Your task to perform on an android device: uninstall "Flipkart Online Shopping App" Image 0: 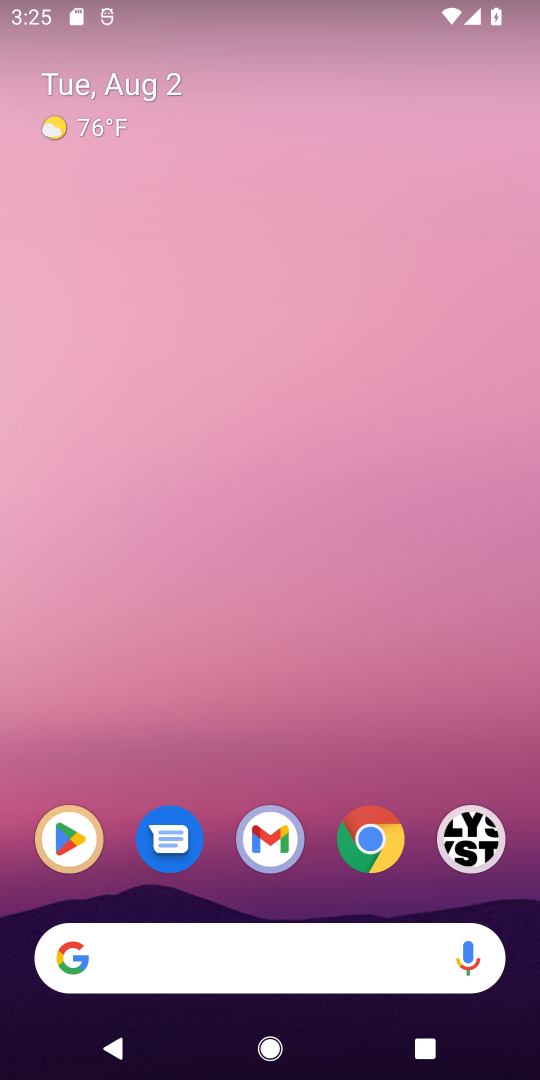
Step 0: drag from (241, 899) to (256, 236)
Your task to perform on an android device: uninstall "Flipkart Online Shopping App" Image 1: 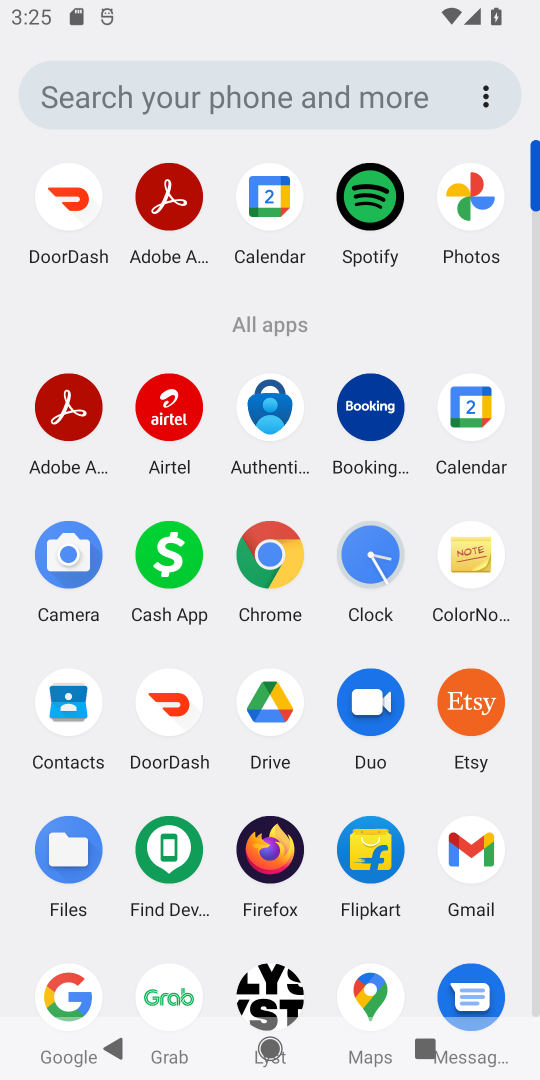
Step 1: click (352, 843)
Your task to perform on an android device: uninstall "Flipkart Online Shopping App" Image 2: 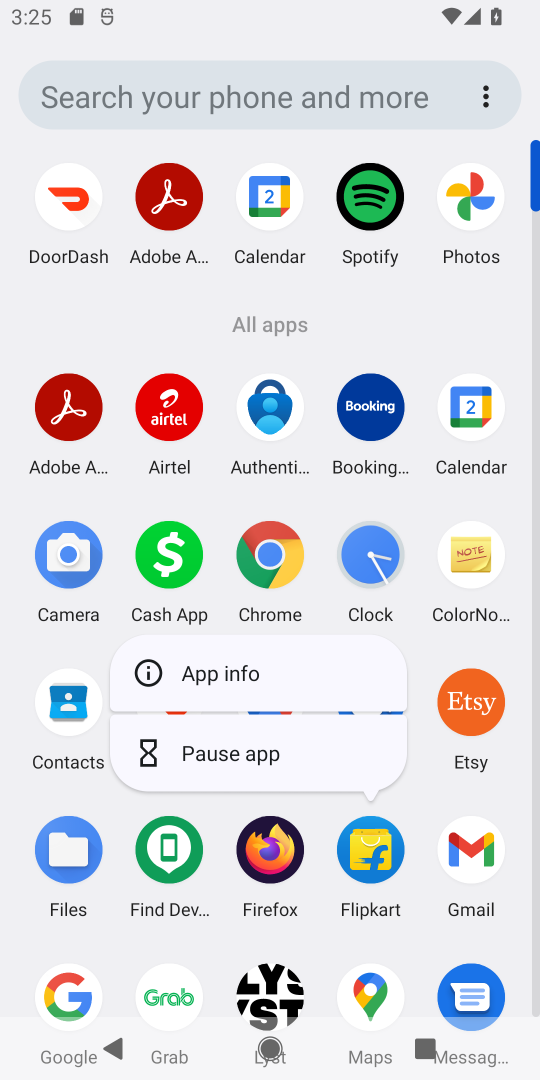
Step 2: click (212, 655)
Your task to perform on an android device: uninstall "Flipkart Online Shopping App" Image 3: 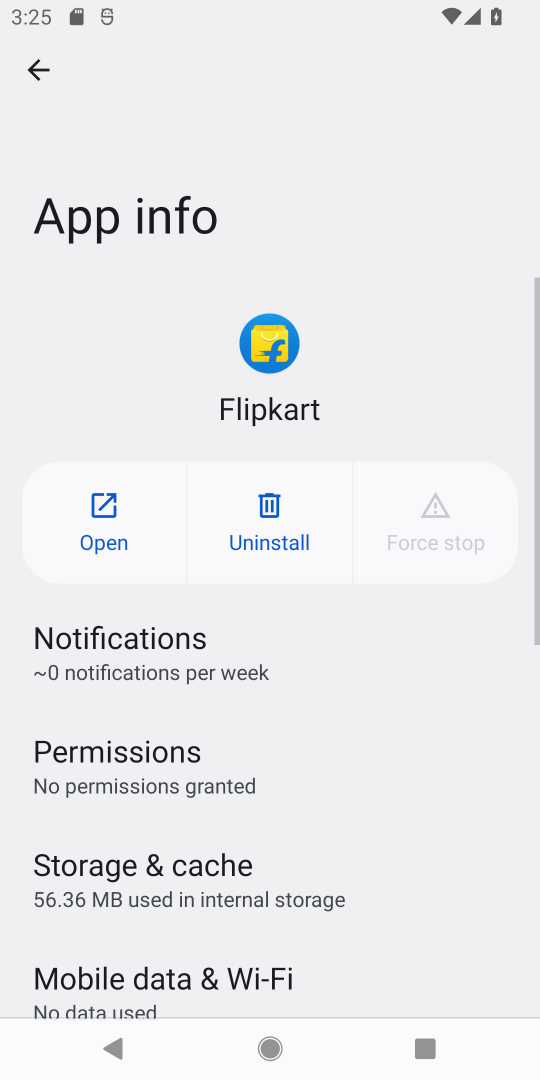
Step 3: click (281, 499)
Your task to perform on an android device: uninstall "Flipkart Online Shopping App" Image 4: 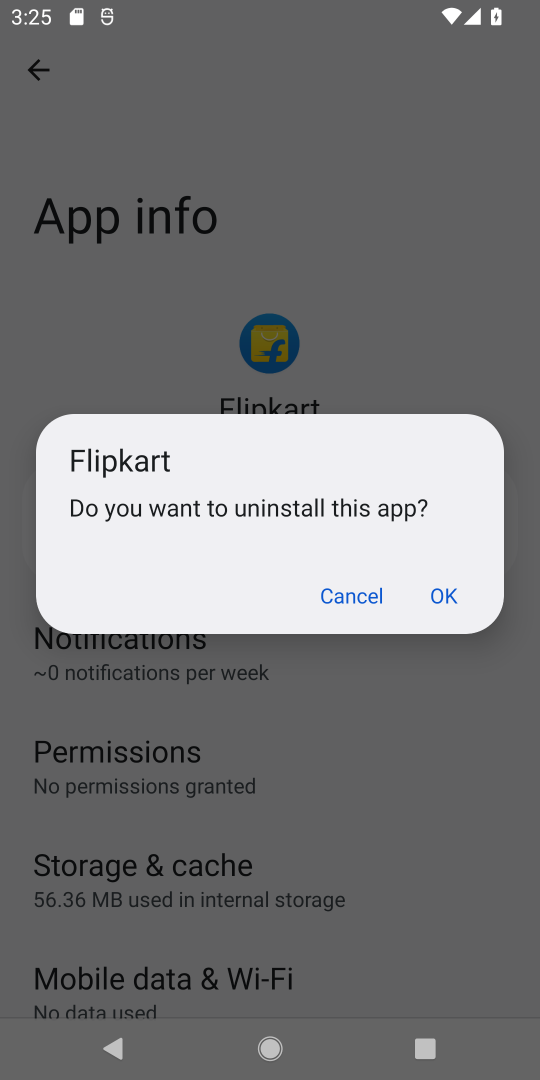
Step 4: click (415, 578)
Your task to perform on an android device: uninstall "Flipkart Online Shopping App" Image 5: 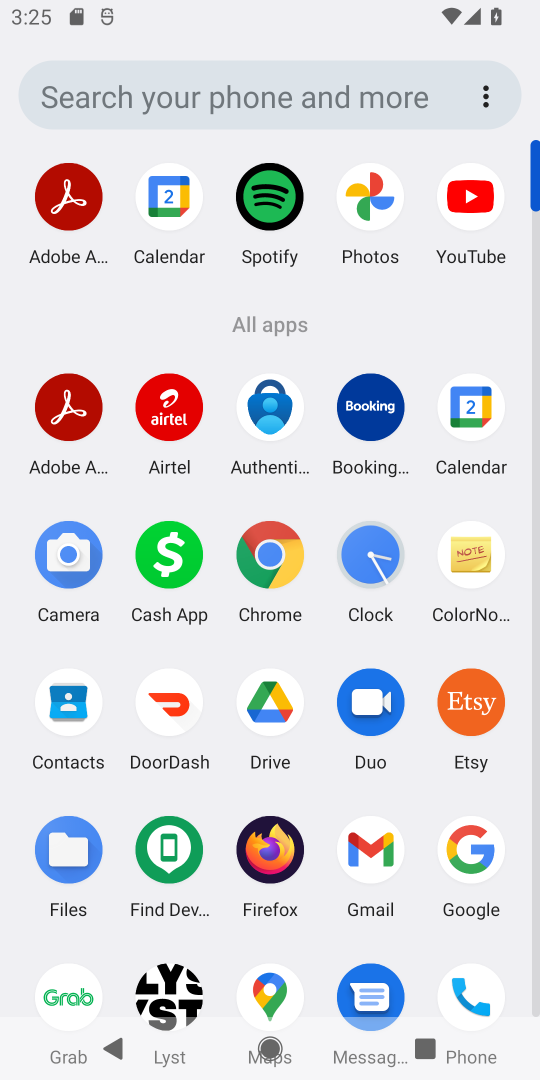
Step 5: task complete